Your task to perform on an android device: turn off improve location accuracy Image 0: 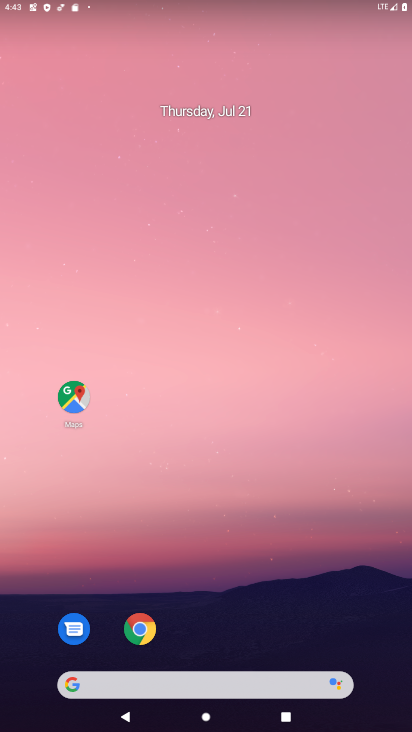
Step 0: drag from (216, 628) to (220, 258)
Your task to perform on an android device: turn off improve location accuracy Image 1: 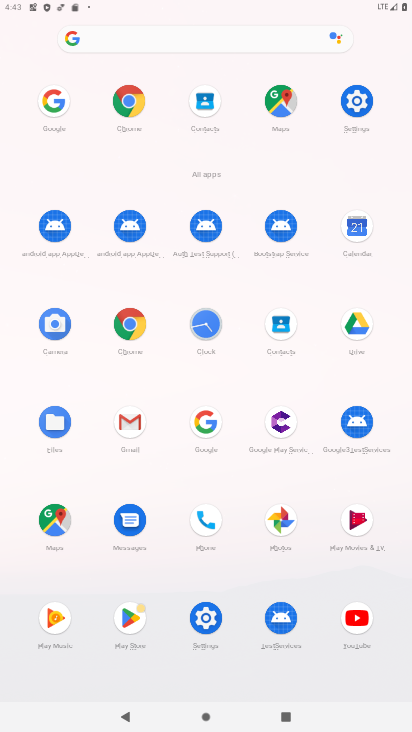
Step 1: click (203, 614)
Your task to perform on an android device: turn off improve location accuracy Image 2: 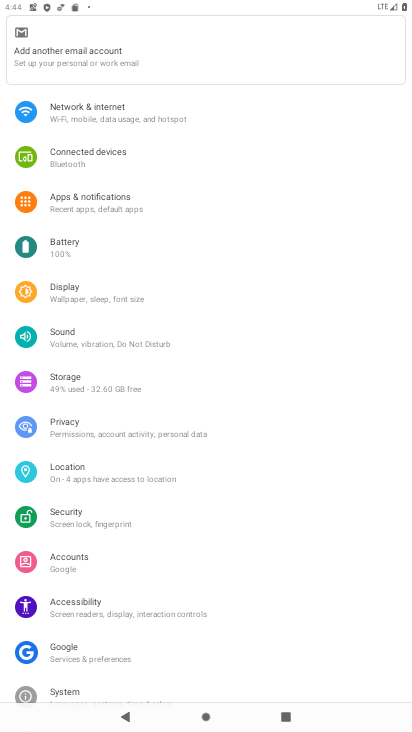
Step 2: click (82, 471)
Your task to perform on an android device: turn off improve location accuracy Image 3: 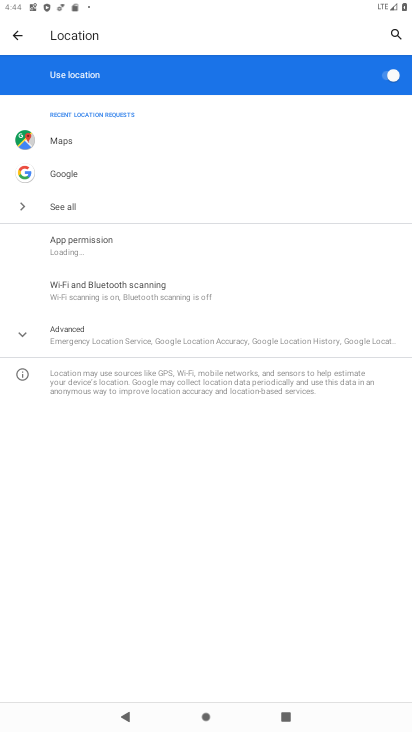
Step 3: click (34, 331)
Your task to perform on an android device: turn off improve location accuracy Image 4: 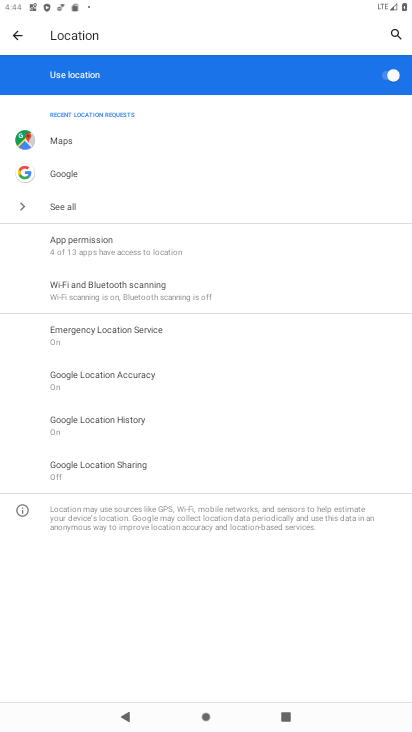
Step 4: click (105, 379)
Your task to perform on an android device: turn off improve location accuracy Image 5: 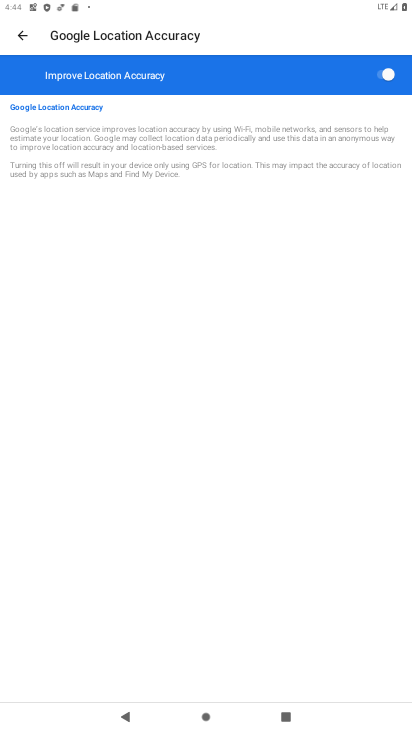
Step 5: click (384, 60)
Your task to perform on an android device: turn off improve location accuracy Image 6: 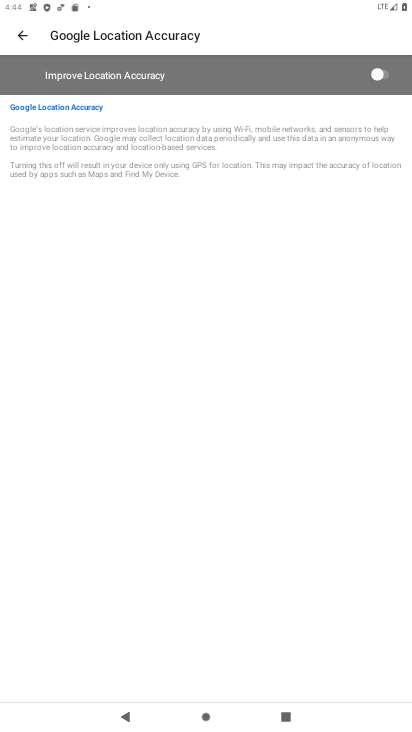
Step 6: task complete